Your task to perform on an android device: Open Amazon Image 0: 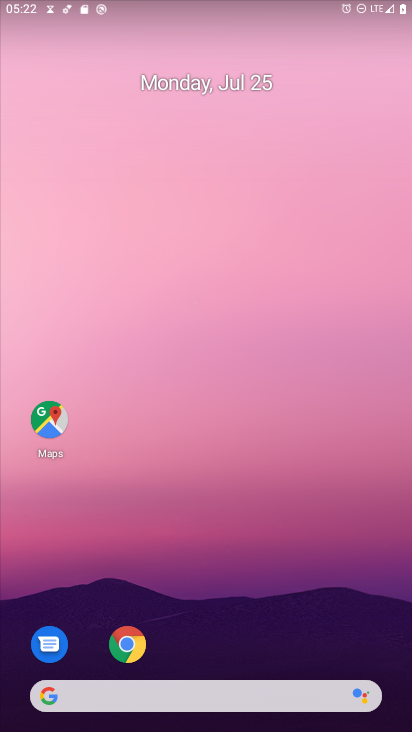
Step 0: press home button
Your task to perform on an android device: Open Amazon Image 1: 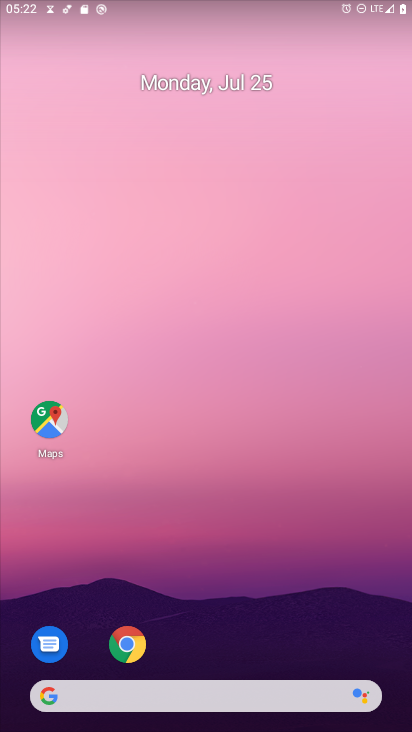
Step 1: click (51, 697)
Your task to perform on an android device: Open Amazon Image 2: 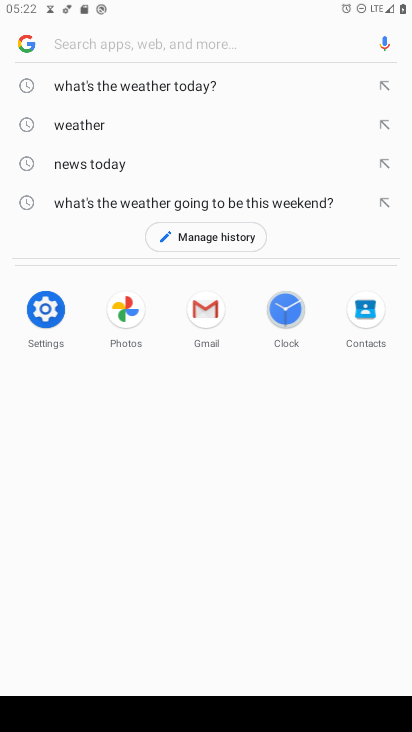
Step 2: type "Amazon"
Your task to perform on an android device: Open Amazon Image 3: 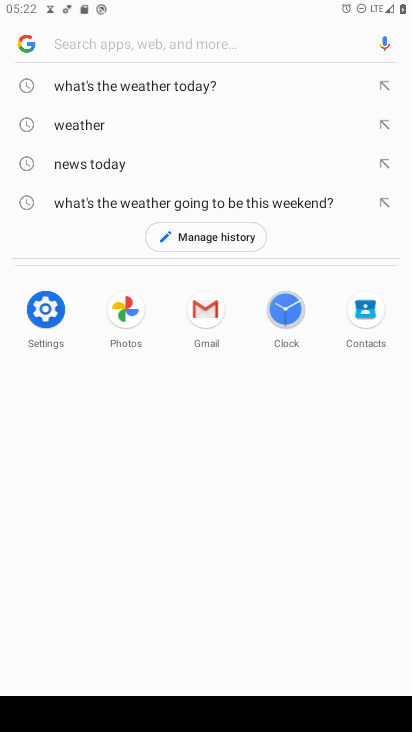
Step 3: click (95, 42)
Your task to perform on an android device: Open Amazon Image 4: 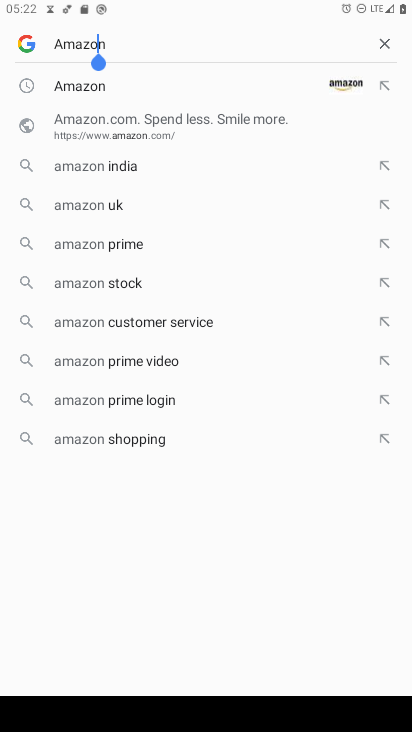
Step 4: click (344, 80)
Your task to perform on an android device: Open Amazon Image 5: 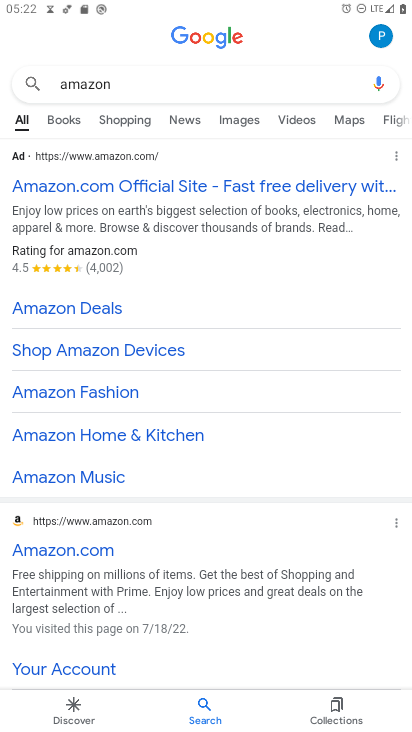
Step 5: click (89, 546)
Your task to perform on an android device: Open Amazon Image 6: 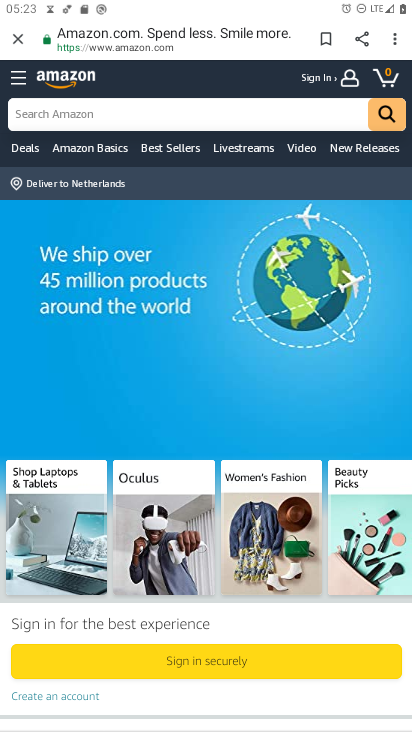
Step 6: task complete